Your task to perform on an android device: What's on my calendar tomorrow? Image 0: 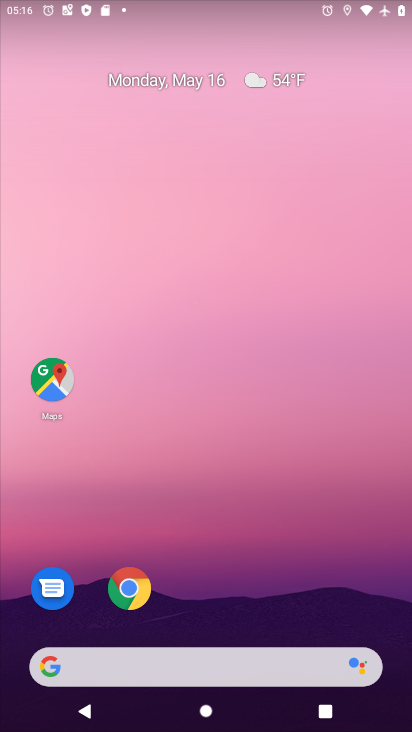
Step 0: drag from (207, 537) to (201, 74)
Your task to perform on an android device: What's on my calendar tomorrow? Image 1: 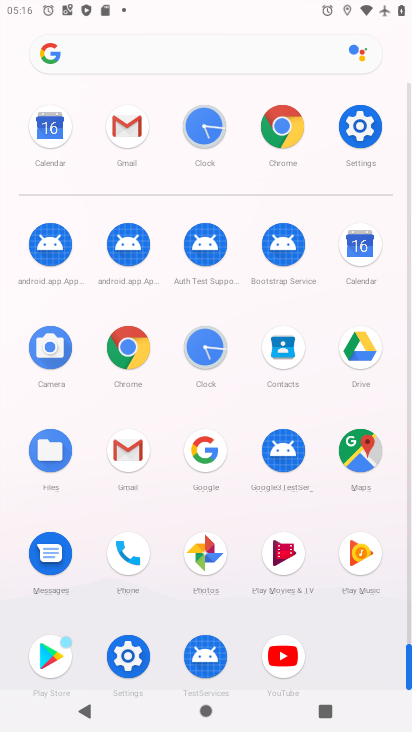
Step 1: drag from (9, 566) to (28, 157)
Your task to perform on an android device: What's on my calendar tomorrow? Image 2: 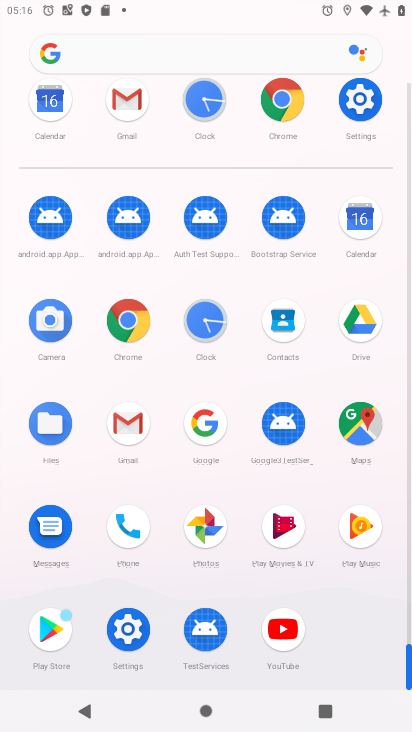
Step 2: drag from (7, 577) to (36, 212)
Your task to perform on an android device: What's on my calendar tomorrow? Image 3: 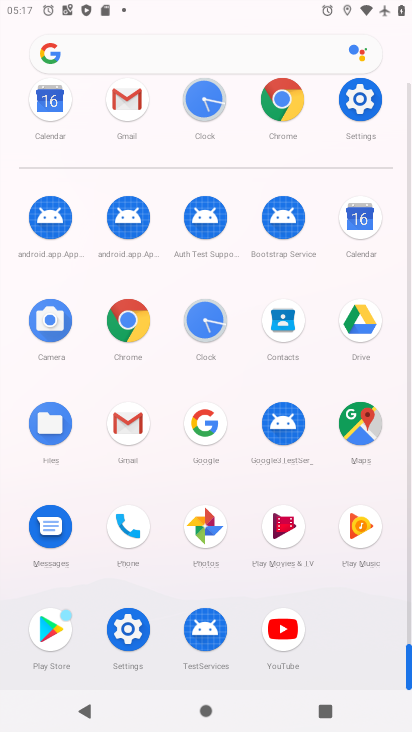
Step 3: click (47, 101)
Your task to perform on an android device: What's on my calendar tomorrow? Image 4: 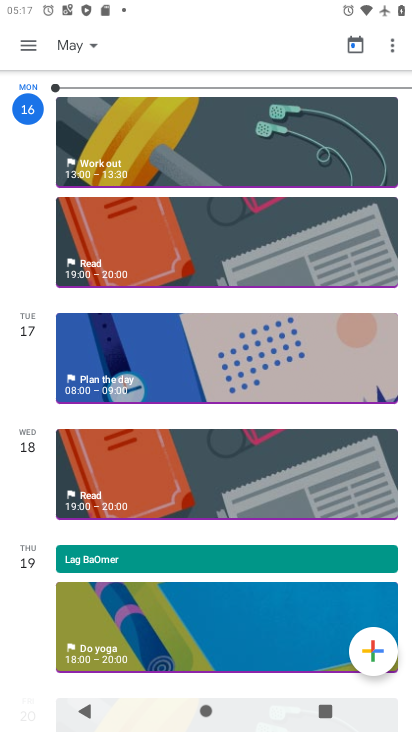
Step 4: click (24, 322)
Your task to perform on an android device: What's on my calendar tomorrow? Image 5: 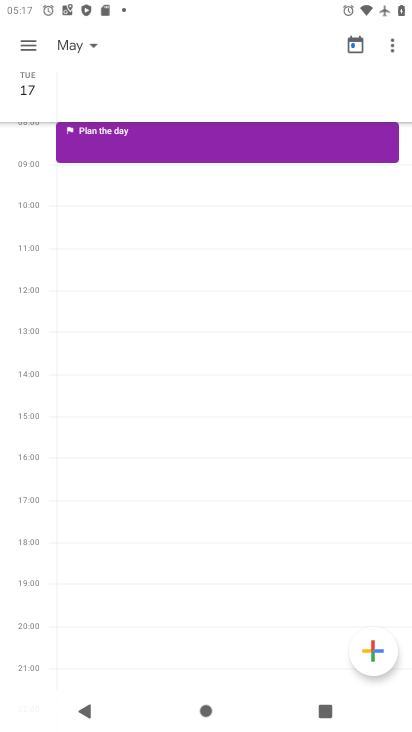
Step 5: task complete